Your task to perform on an android device: set the stopwatch Image 0: 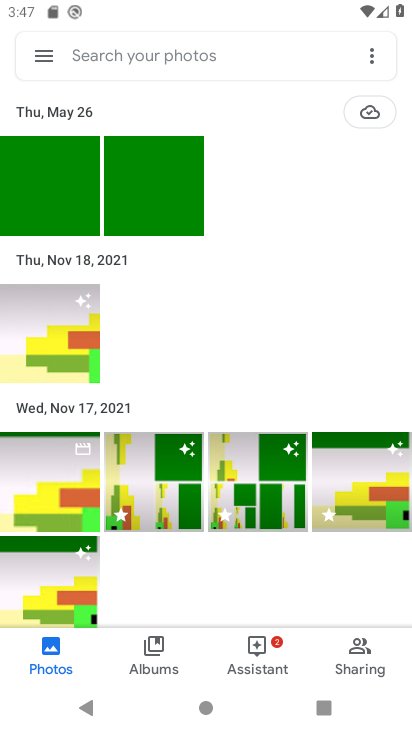
Step 0: press home button
Your task to perform on an android device: set the stopwatch Image 1: 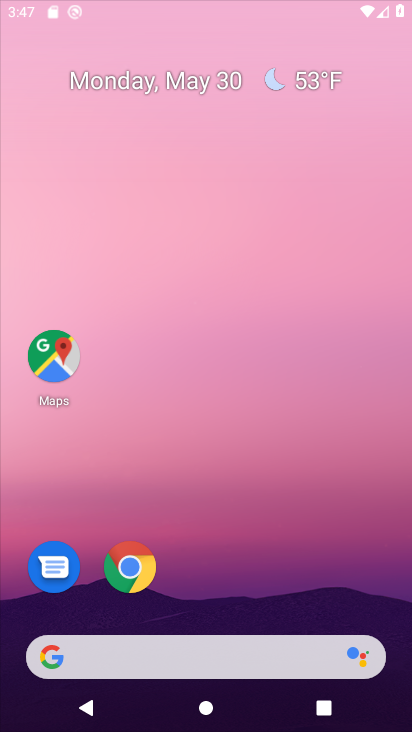
Step 1: drag from (289, 613) to (271, 46)
Your task to perform on an android device: set the stopwatch Image 2: 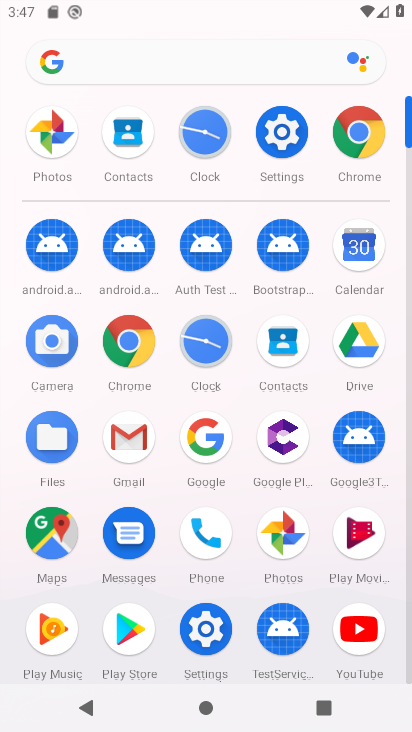
Step 2: click (192, 347)
Your task to perform on an android device: set the stopwatch Image 3: 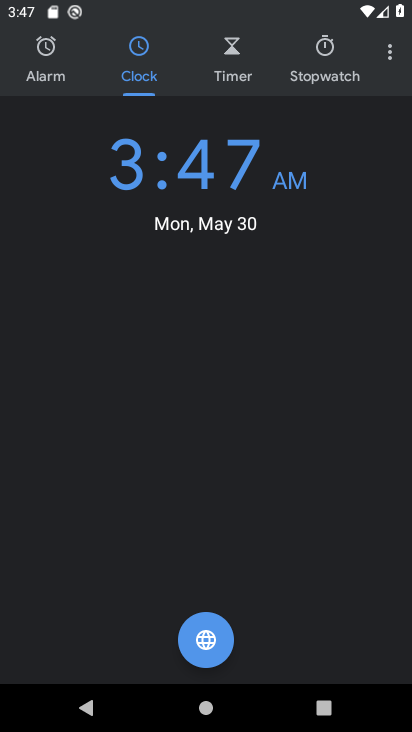
Step 3: click (305, 50)
Your task to perform on an android device: set the stopwatch Image 4: 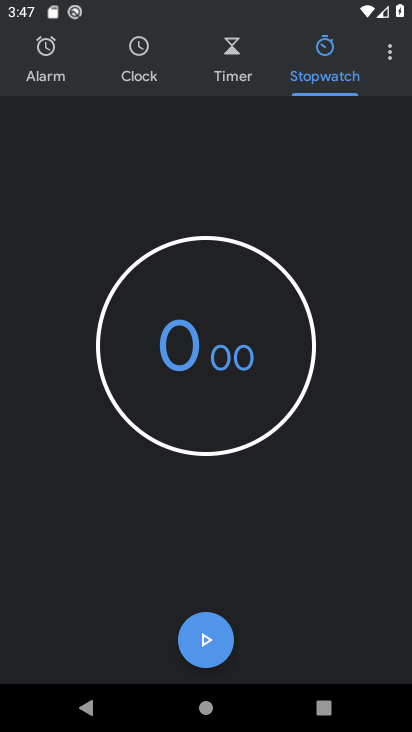
Step 4: task complete